Your task to perform on an android device: change text size in settings app Image 0: 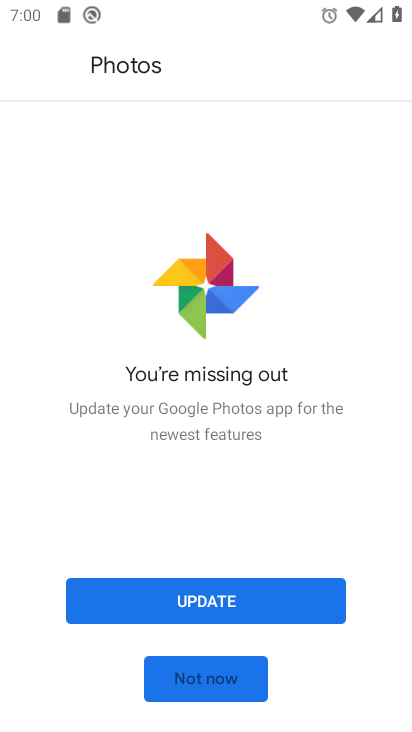
Step 0: press back button
Your task to perform on an android device: change text size in settings app Image 1: 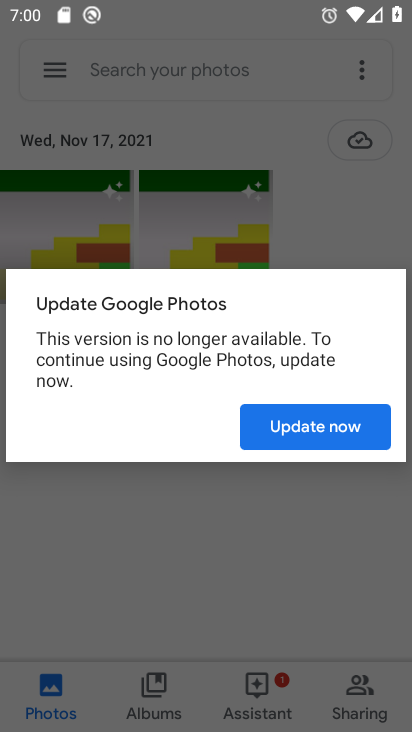
Step 1: press back button
Your task to perform on an android device: change text size in settings app Image 2: 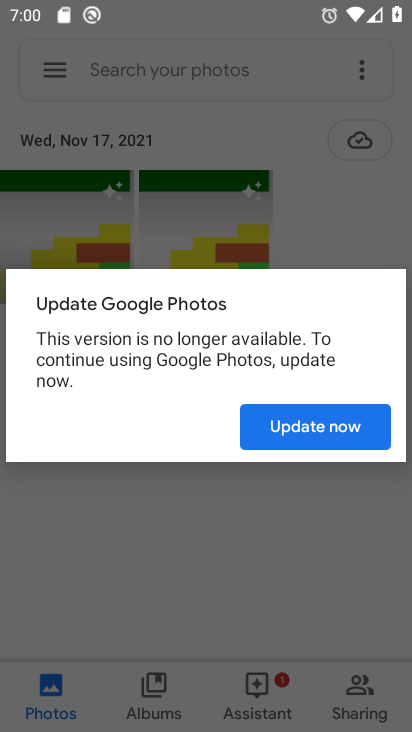
Step 2: press back button
Your task to perform on an android device: change text size in settings app Image 3: 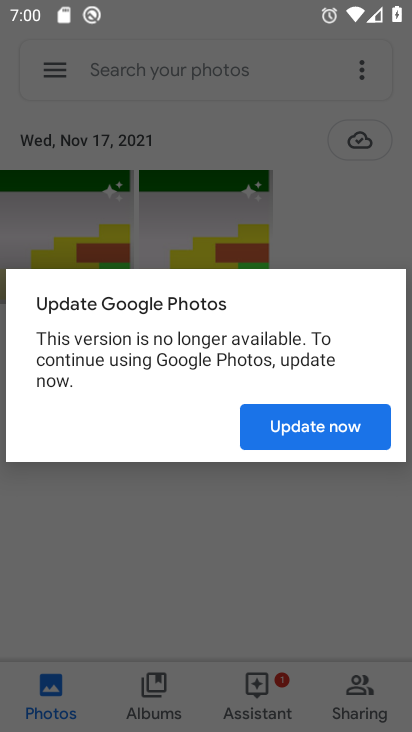
Step 3: press back button
Your task to perform on an android device: change text size in settings app Image 4: 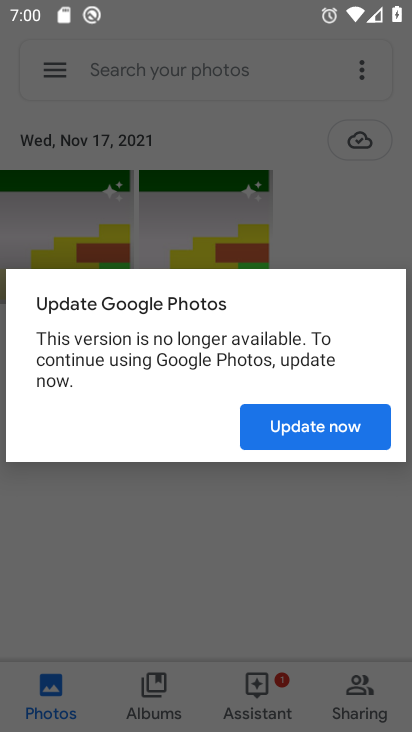
Step 4: press home button
Your task to perform on an android device: change text size in settings app Image 5: 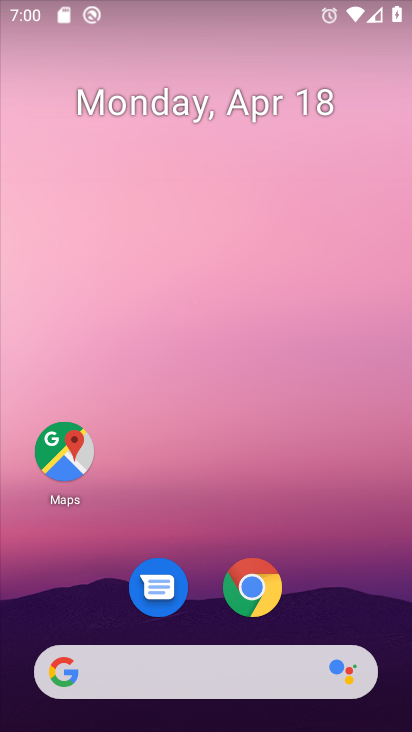
Step 5: drag from (350, 580) to (363, 66)
Your task to perform on an android device: change text size in settings app Image 6: 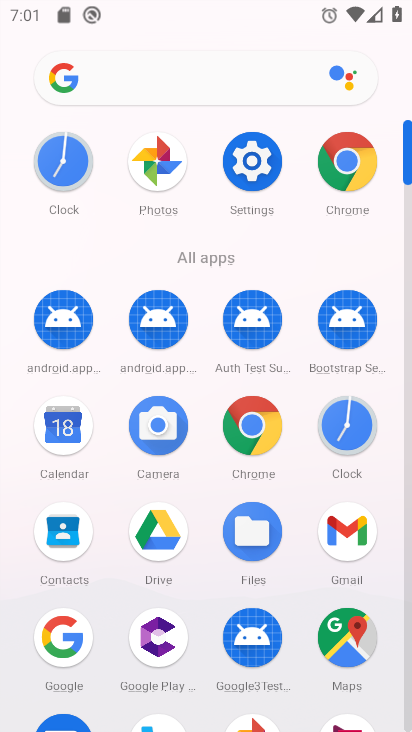
Step 6: click (261, 189)
Your task to perform on an android device: change text size in settings app Image 7: 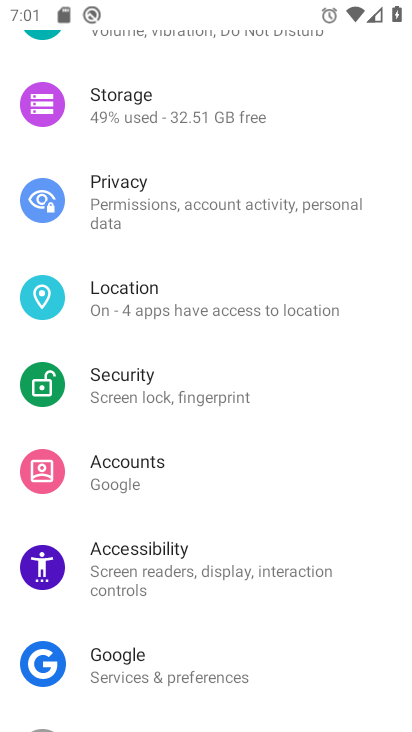
Step 7: drag from (218, 539) to (262, 313)
Your task to perform on an android device: change text size in settings app Image 8: 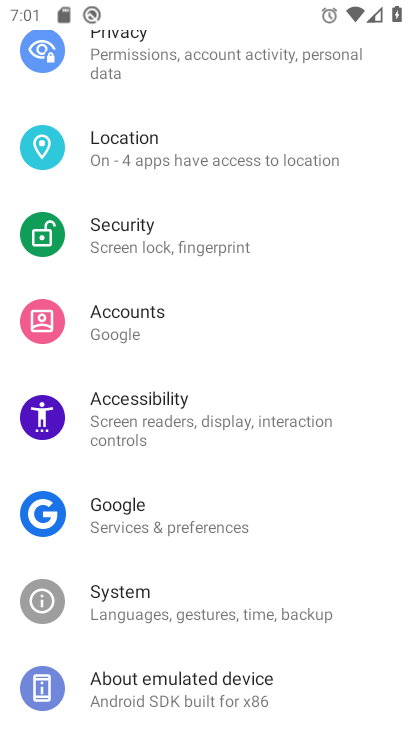
Step 8: drag from (262, 313) to (243, 670)
Your task to perform on an android device: change text size in settings app Image 9: 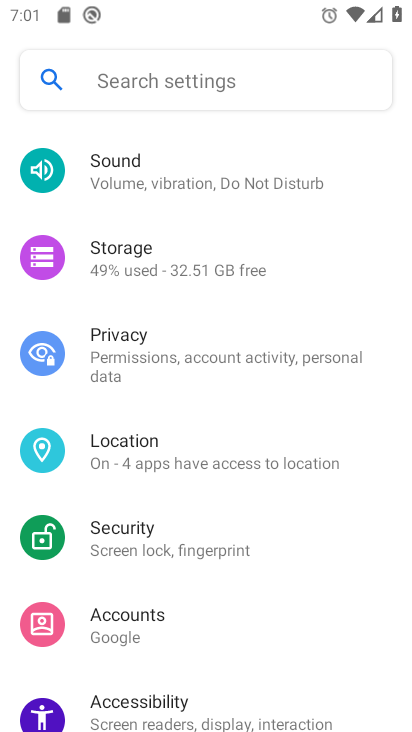
Step 9: drag from (242, 206) to (242, 459)
Your task to perform on an android device: change text size in settings app Image 10: 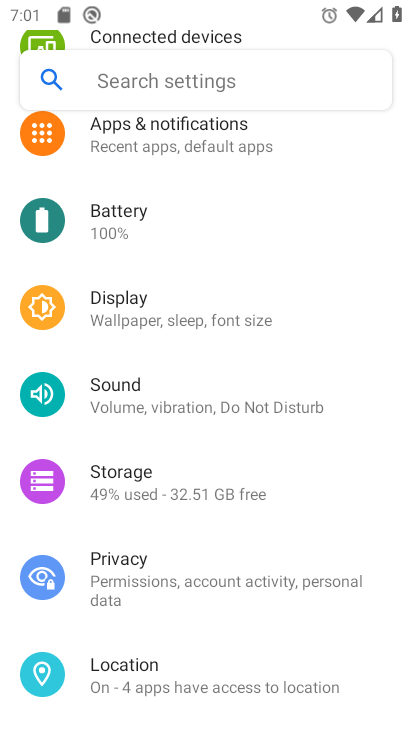
Step 10: click (244, 329)
Your task to perform on an android device: change text size in settings app Image 11: 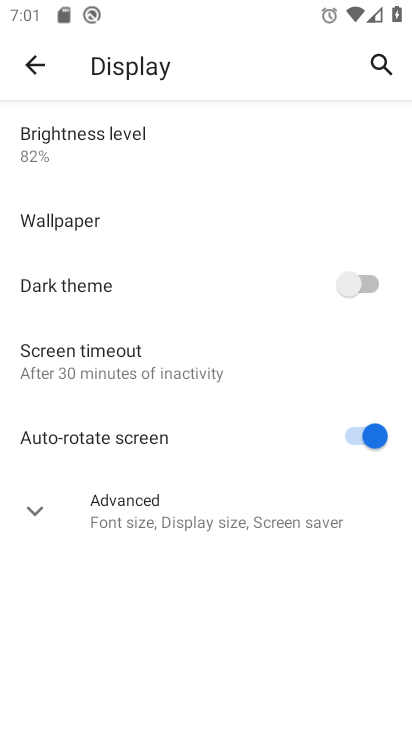
Step 11: click (252, 503)
Your task to perform on an android device: change text size in settings app Image 12: 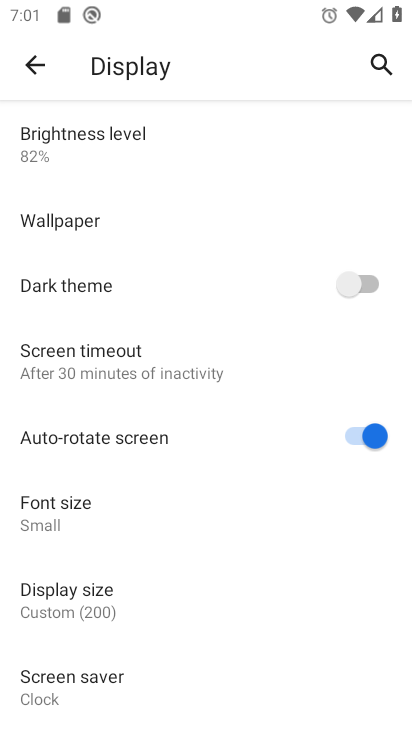
Step 12: click (223, 509)
Your task to perform on an android device: change text size in settings app Image 13: 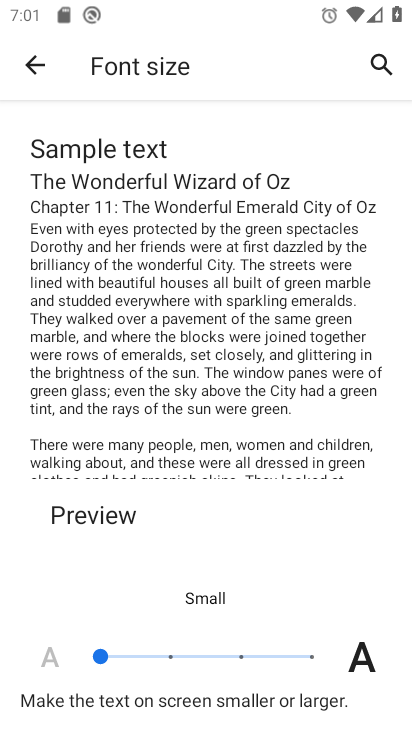
Step 13: click (248, 653)
Your task to perform on an android device: change text size in settings app Image 14: 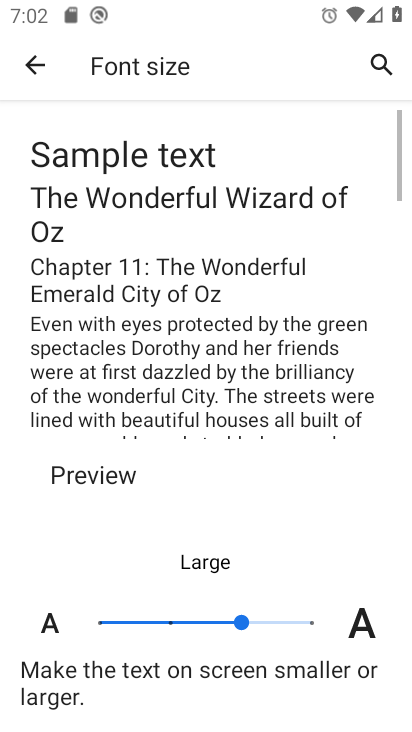
Step 14: task complete